Your task to perform on an android device: Search for vegetarian restaurants on Maps Image 0: 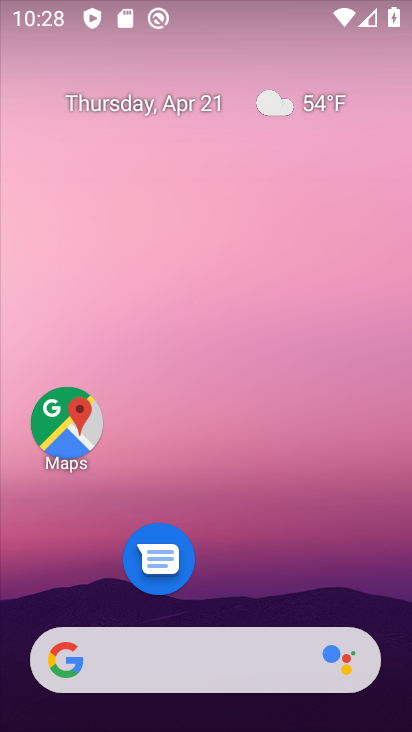
Step 0: click (80, 426)
Your task to perform on an android device: Search for vegetarian restaurants on Maps Image 1: 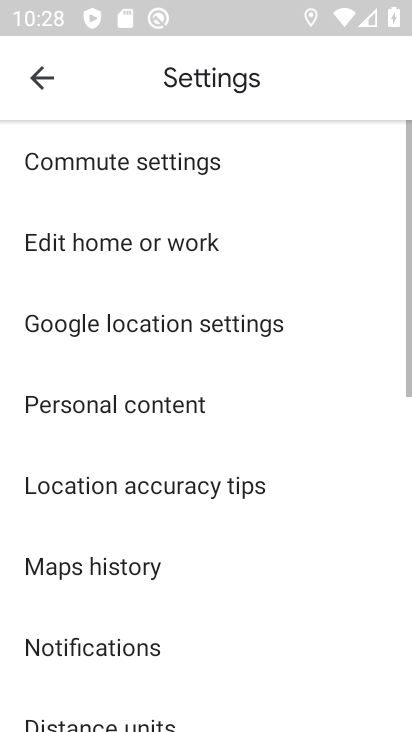
Step 1: click (56, 74)
Your task to perform on an android device: Search for vegetarian restaurants on Maps Image 2: 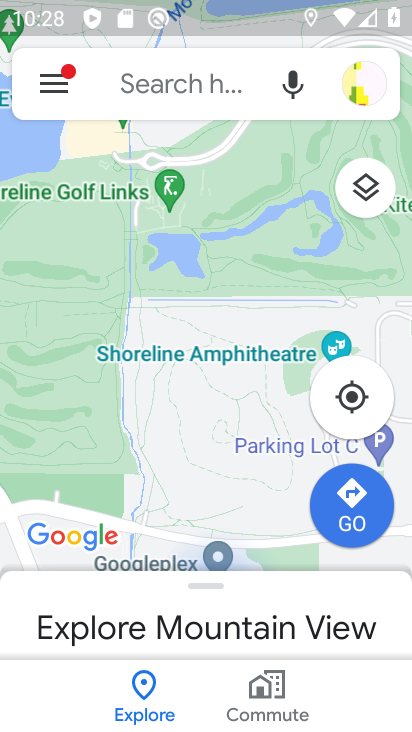
Step 2: click (165, 80)
Your task to perform on an android device: Search for vegetarian restaurants on Maps Image 3: 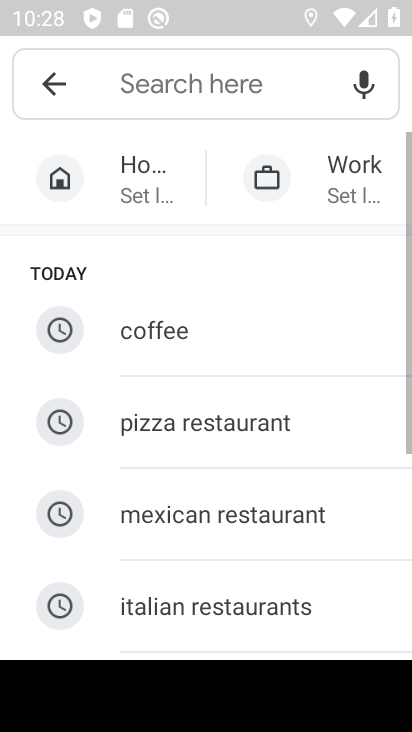
Step 3: drag from (196, 567) to (258, 101)
Your task to perform on an android device: Search for vegetarian restaurants on Maps Image 4: 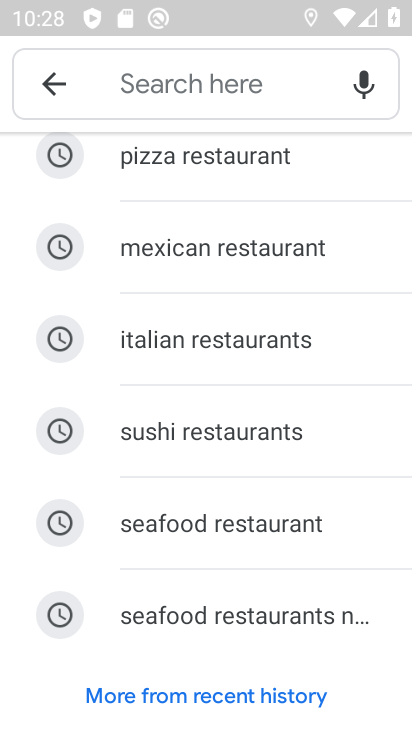
Step 4: click (151, 68)
Your task to perform on an android device: Search for vegetarian restaurants on Maps Image 5: 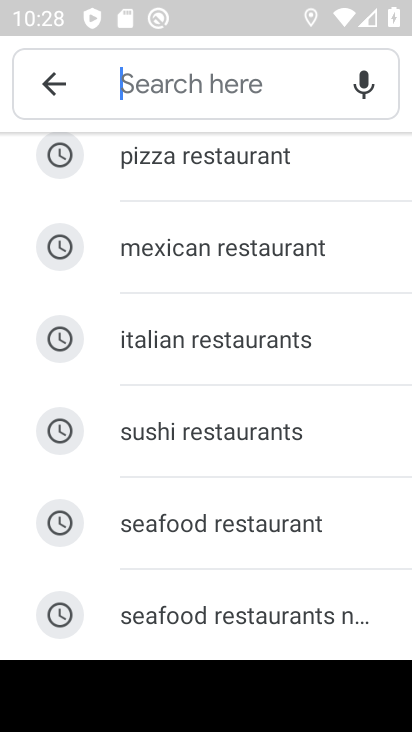
Step 5: type "vegetarian rest"
Your task to perform on an android device: Search for vegetarian restaurants on Maps Image 6: 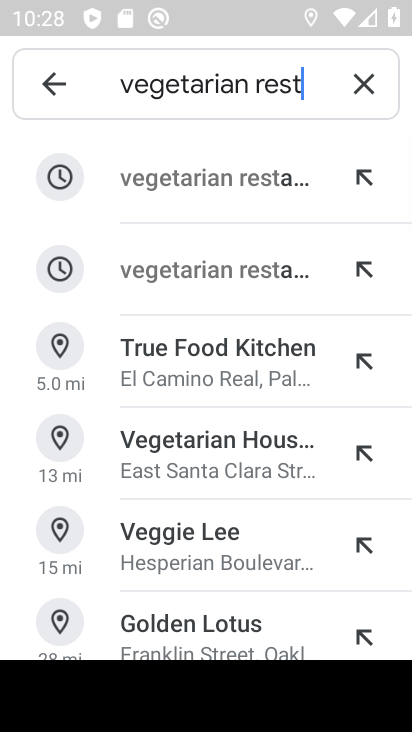
Step 6: click (235, 178)
Your task to perform on an android device: Search for vegetarian restaurants on Maps Image 7: 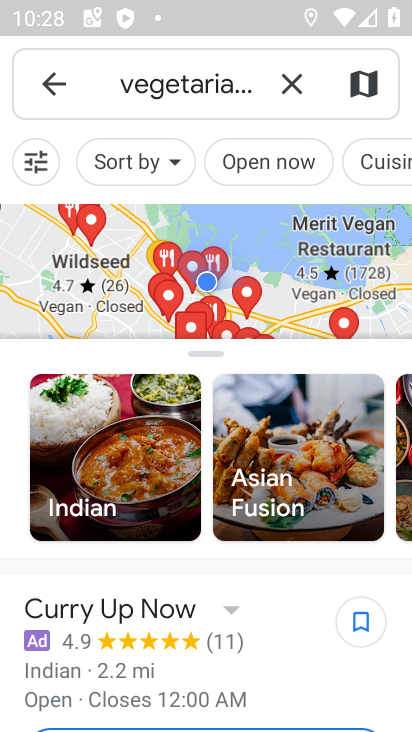
Step 7: task complete